Your task to perform on an android device: empty trash in google photos Image 0: 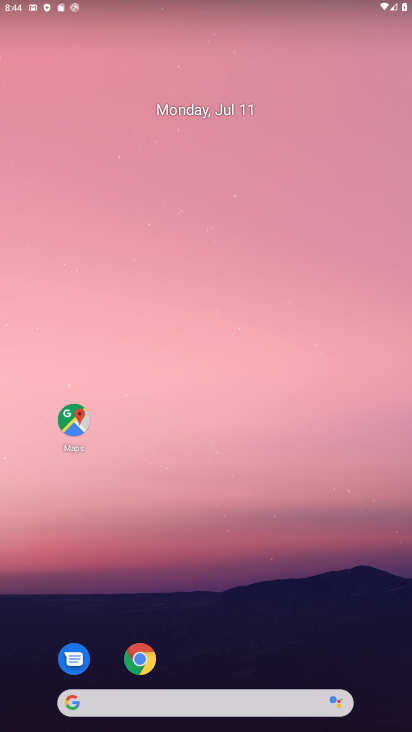
Step 0: drag from (134, 60) to (115, 0)
Your task to perform on an android device: empty trash in google photos Image 1: 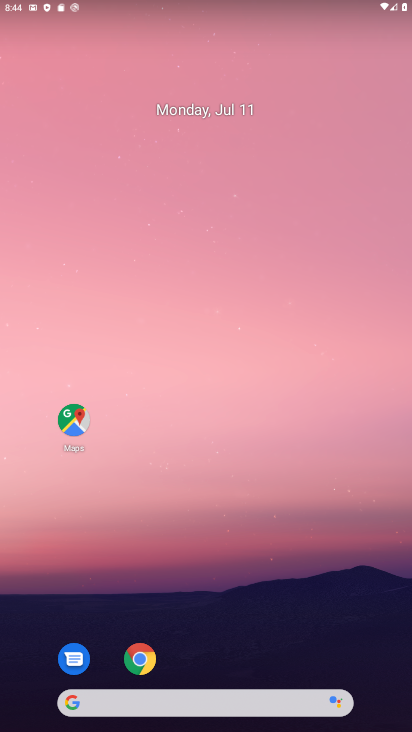
Step 1: drag from (150, 457) to (113, 70)
Your task to perform on an android device: empty trash in google photos Image 2: 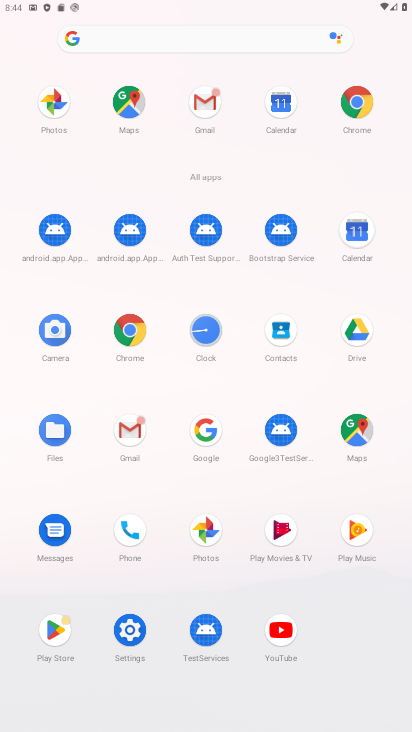
Step 2: click (210, 526)
Your task to perform on an android device: empty trash in google photos Image 3: 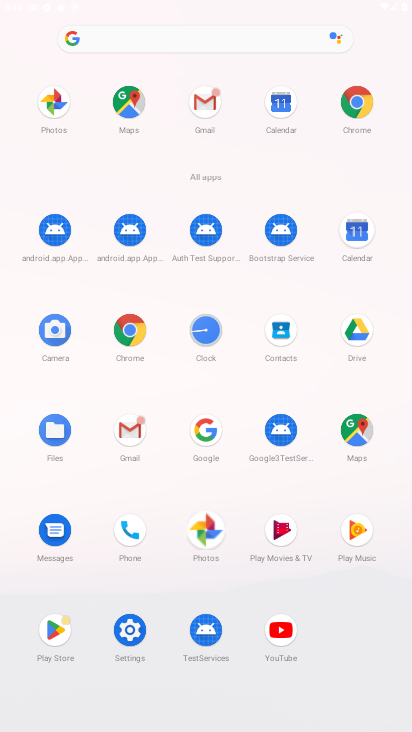
Step 3: click (208, 528)
Your task to perform on an android device: empty trash in google photos Image 4: 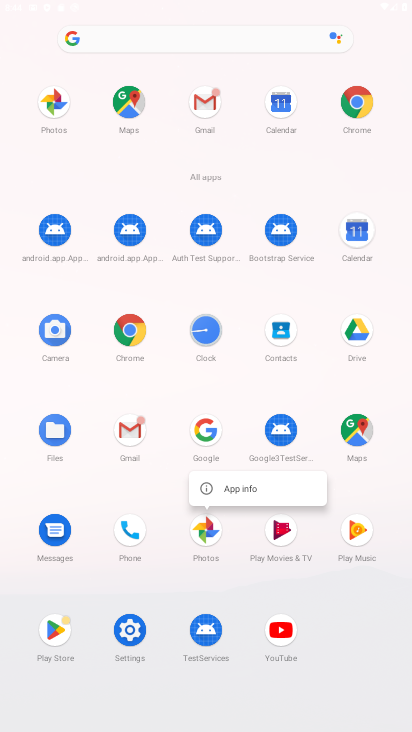
Step 4: click (209, 528)
Your task to perform on an android device: empty trash in google photos Image 5: 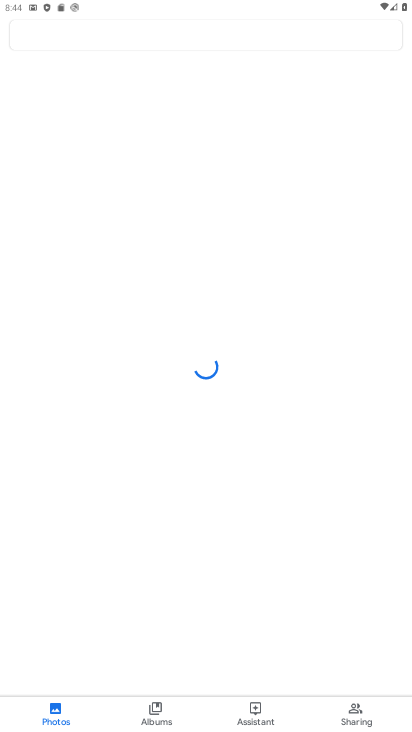
Step 5: press back button
Your task to perform on an android device: empty trash in google photos Image 6: 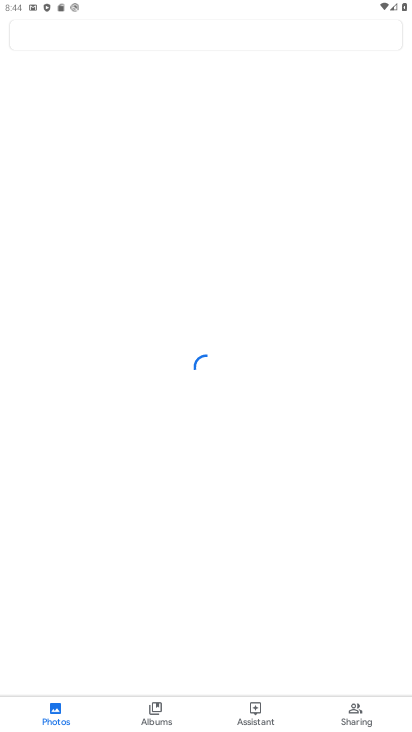
Step 6: press back button
Your task to perform on an android device: empty trash in google photos Image 7: 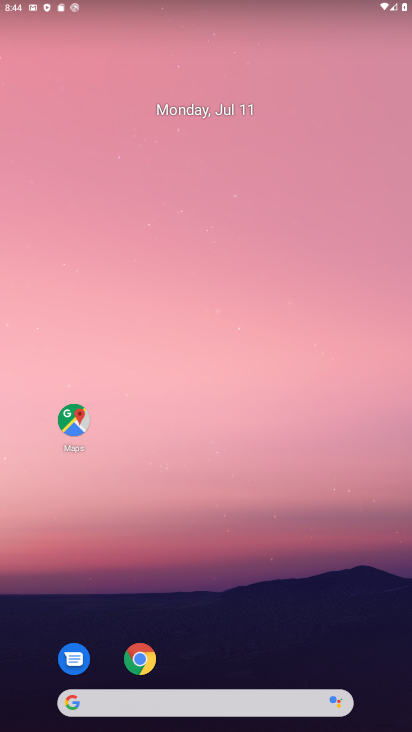
Step 7: drag from (268, 542) to (51, 45)
Your task to perform on an android device: empty trash in google photos Image 8: 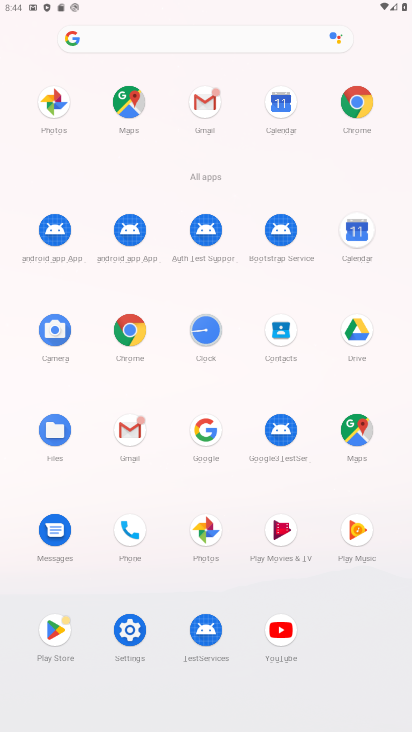
Step 8: click (196, 515)
Your task to perform on an android device: empty trash in google photos Image 9: 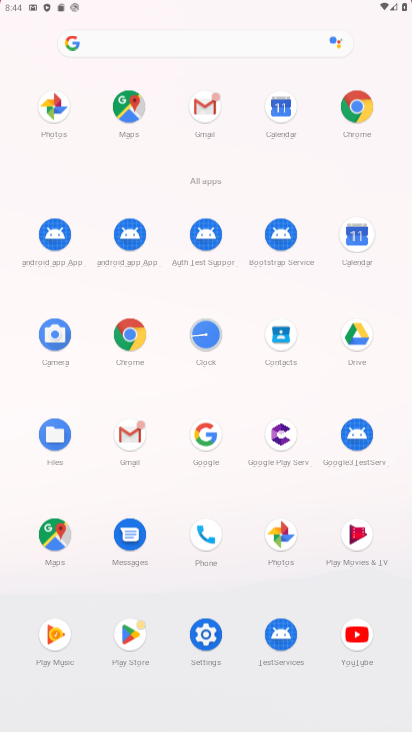
Step 9: click (200, 526)
Your task to perform on an android device: empty trash in google photos Image 10: 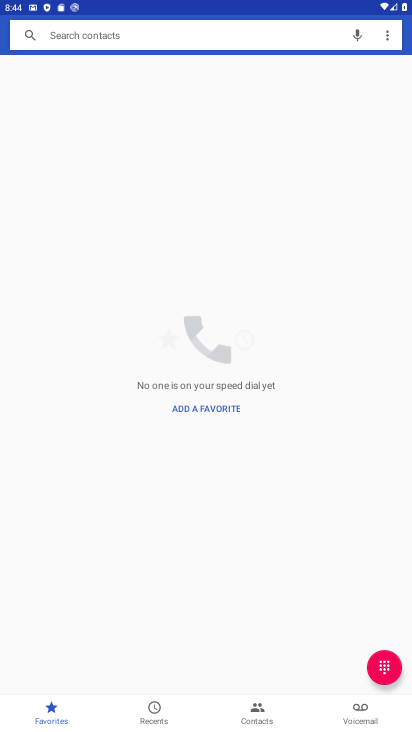
Step 10: press back button
Your task to perform on an android device: empty trash in google photos Image 11: 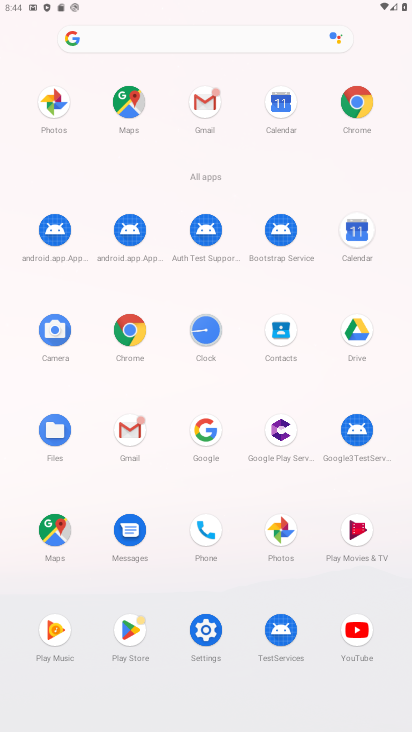
Step 11: click (285, 518)
Your task to perform on an android device: empty trash in google photos Image 12: 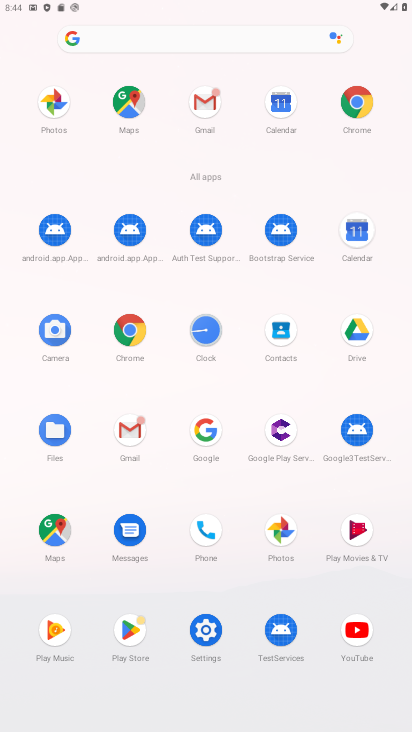
Step 12: click (280, 527)
Your task to perform on an android device: empty trash in google photos Image 13: 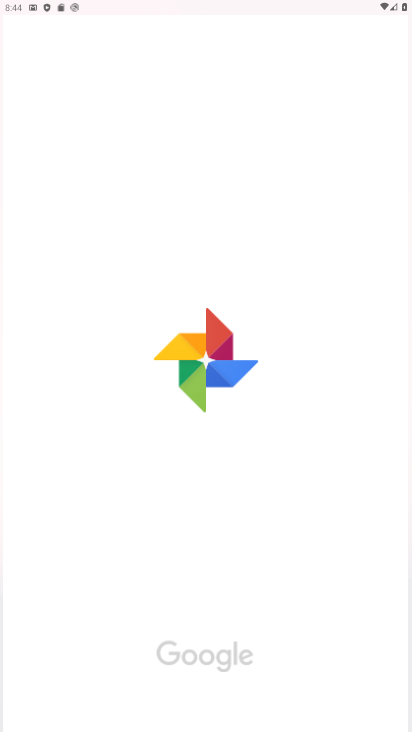
Step 13: click (275, 523)
Your task to perform on an android device: empty trash in google photos Image 14: 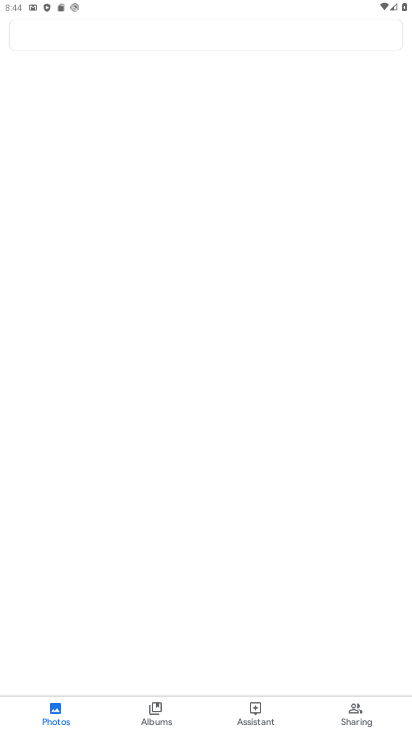
Step 14: click (275, 523)
Your task to perform on an android device: empty trash in google photos Image 15: 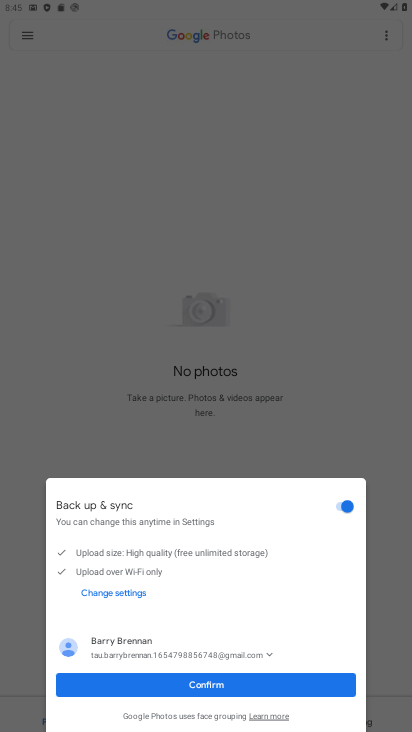
Step 15: click (239, 375)
Your task to perform on an android device: empty trash in google photos Image 16: 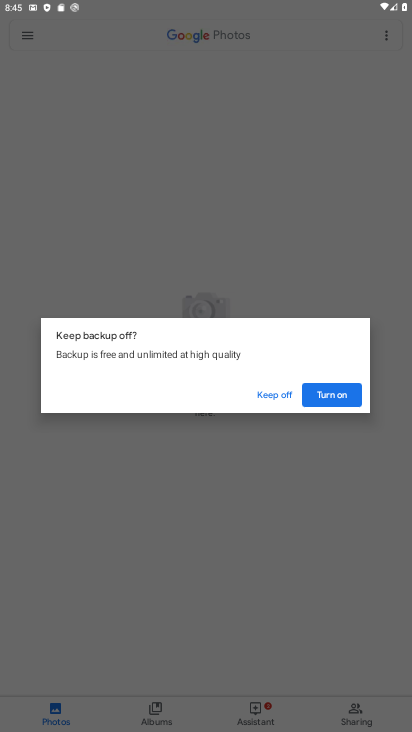
Step 16: click (316, 328)
Your task to perform on an android device: empty trash in google photos Image 17: 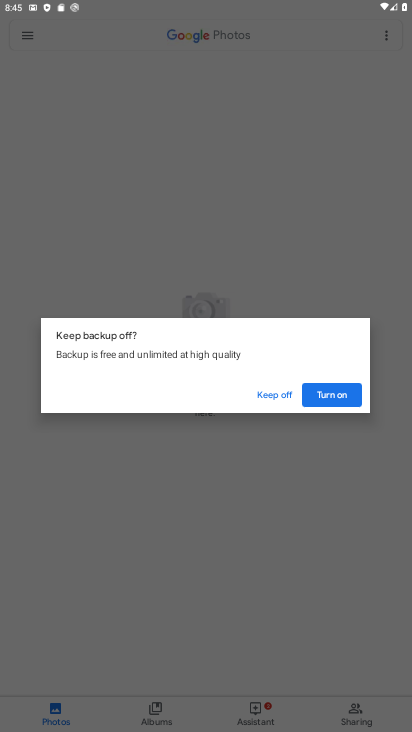
Step 17: click (316, 328)
Your task to perform on an android device: empty trash in google photos Image 18: 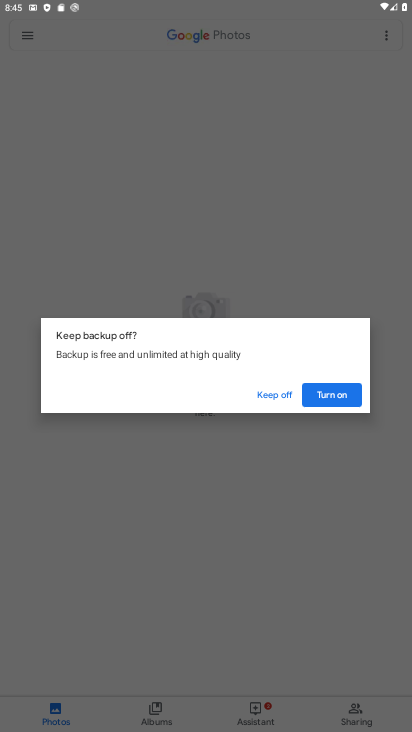
Step 18: click (308, 205)
Your task to perform on an android device: empty trash in google photos Image 19: 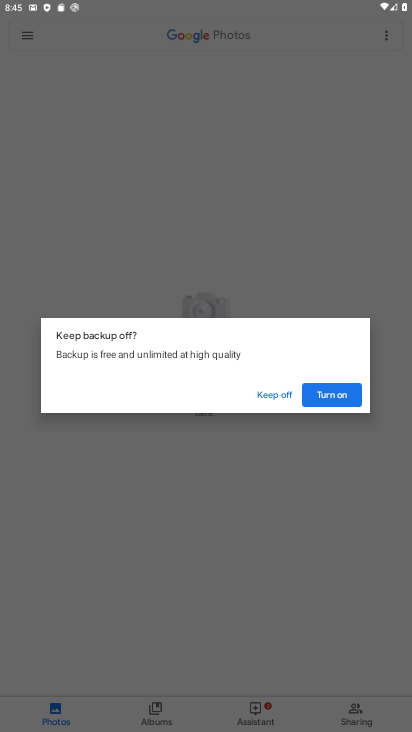
Step 19: click (311, 202)
Your task to perform on an android device: empty trash in google photos Image 20: 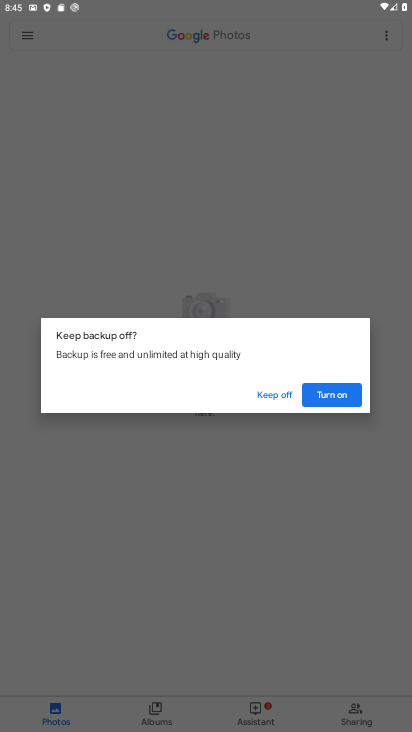
Step 20: press back button
Your task to perform on an android device: empty trash in google photos Image 21: 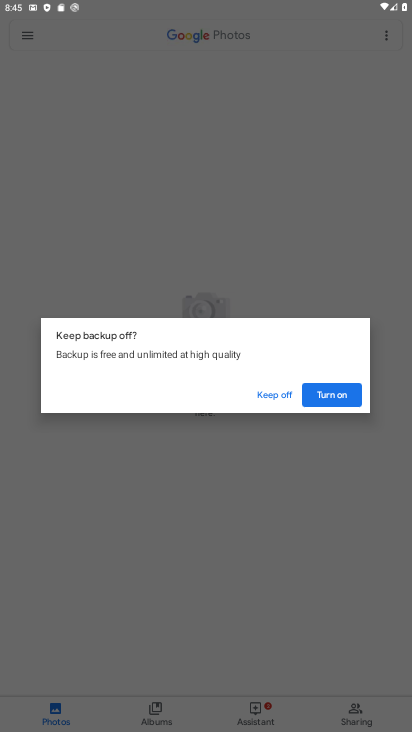
Step 21: click (189, 175)
Your task to perform on an android device: empty trash in google photos Image 22: 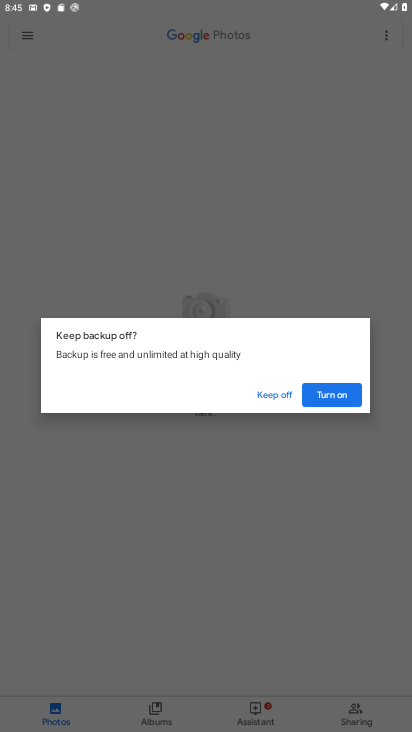
Step 22: click (195, 171)
Your task to perform on an android device: empty trash in google photos Image 23: 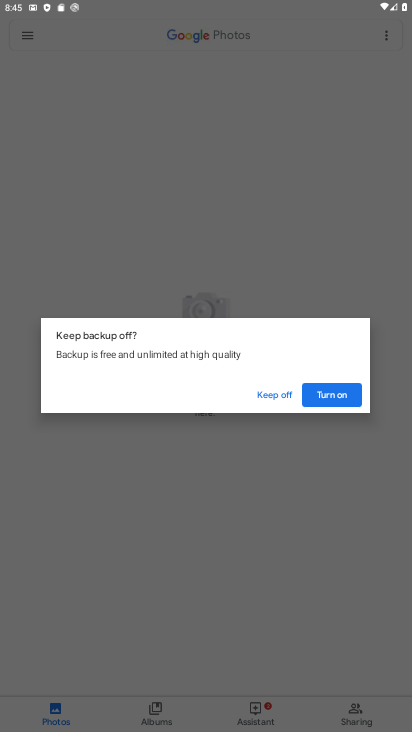
Step 23: press home button
Your task to perform on an android device: empty trash in google photos Image 24: 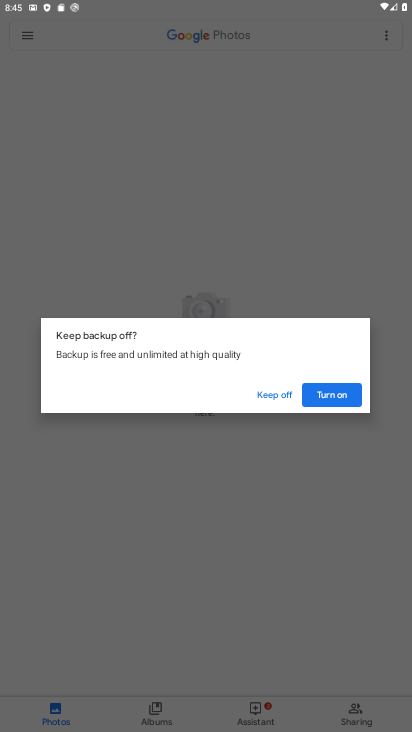
Step 24: press home button
Your task to perform on an android device: empty trash in google photos Image 25: 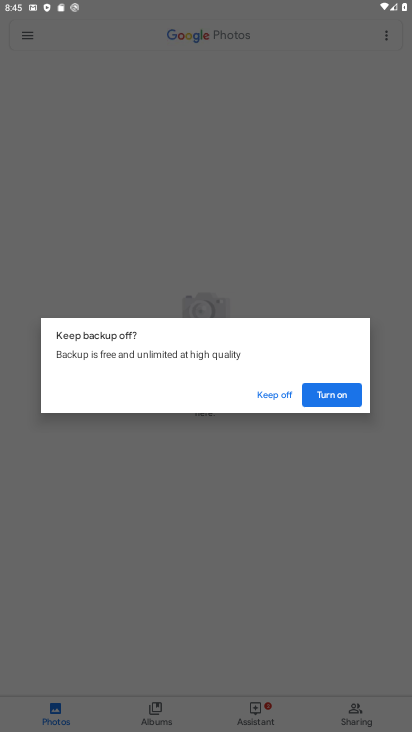
Step 25: click (194, 252)
Your task to perform on an android device: empty trash in google photos Image 26: 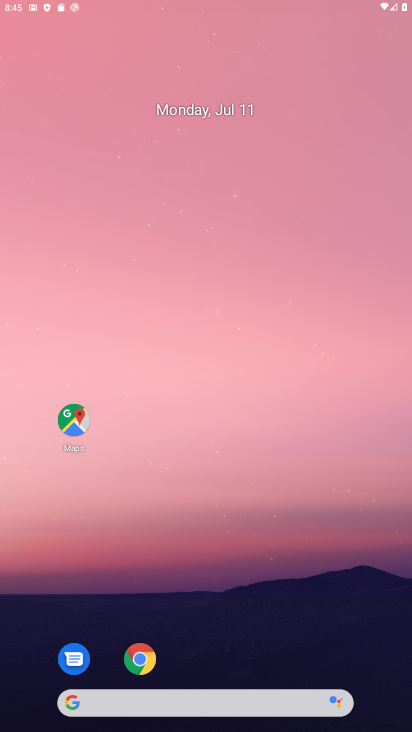
Step 26: press home button
Your task to perform on an android device: empty trash in google photos Image 27: 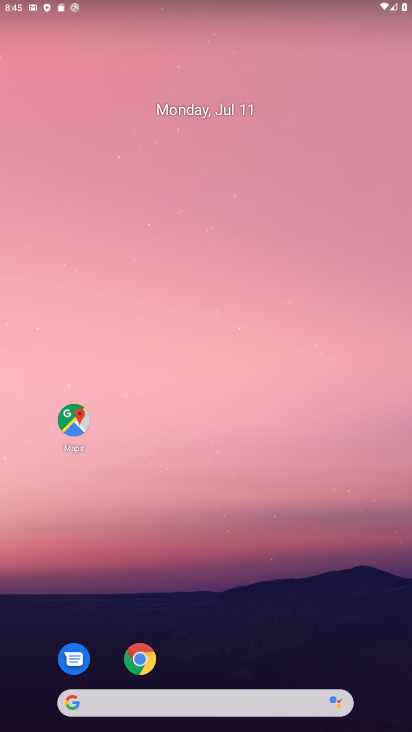
Step 27: drag from (234, 680) to (91, 0)
Your task to perform on an android device: empty trash in google photos Image 28: 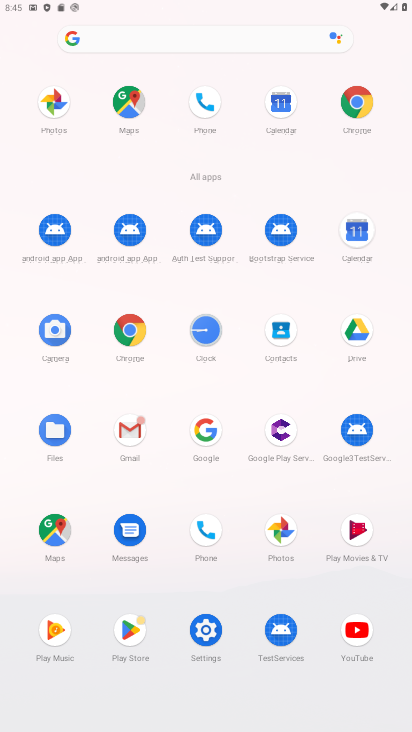
Step 28: click (284, 532)
Your task to perform on an android device: empty trash in google photos Image 29: 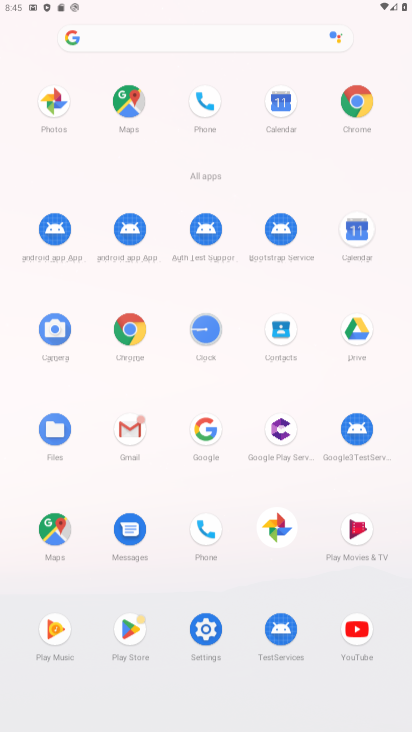
Step 29: click (285, 532)
Your task to perform on an android device: empty trash in google photos Image 30: 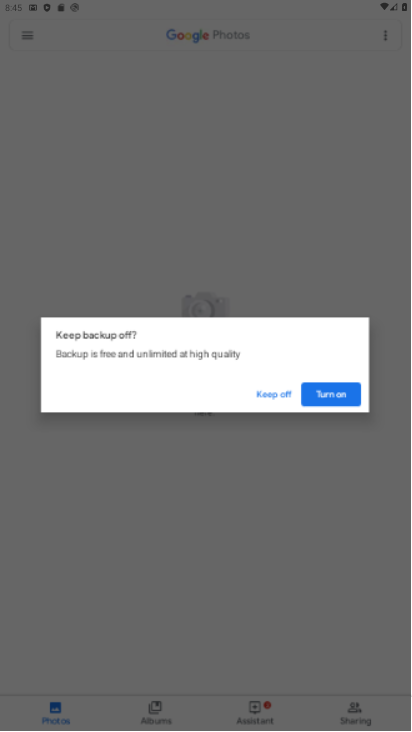
Step 30: click (286, 533)
Your task to perform on an android device: empty trash in google photos Image 31: 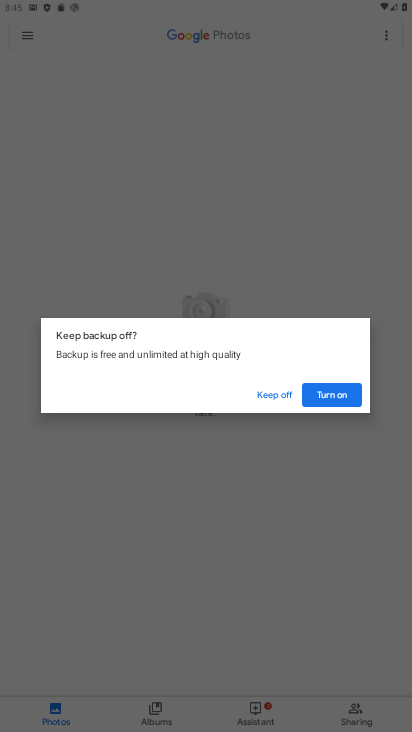
Step 31: click (286, 534)
Your task to perform on an android device: empty trash in google photos Image 32: 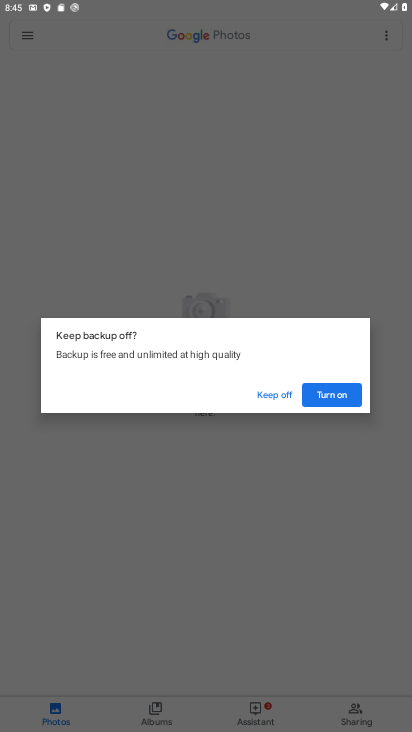
Step 32: click (272, 397)
Your task to perform on an android device: empty trash in google photos Image 33: 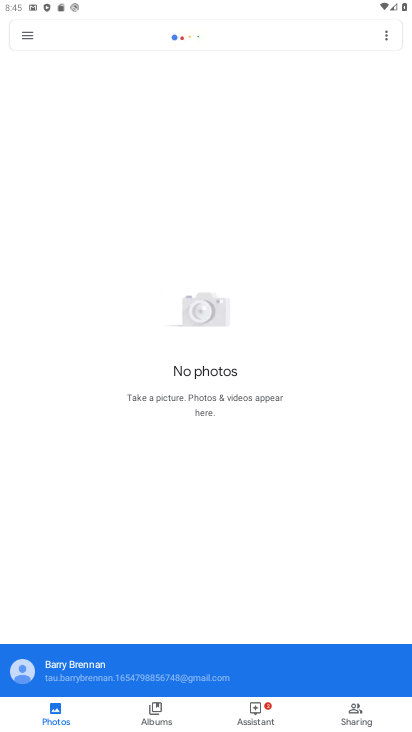
Step 33: click (31, 28)
Your task to perform on an android device: empty trash in google photos Image 34: 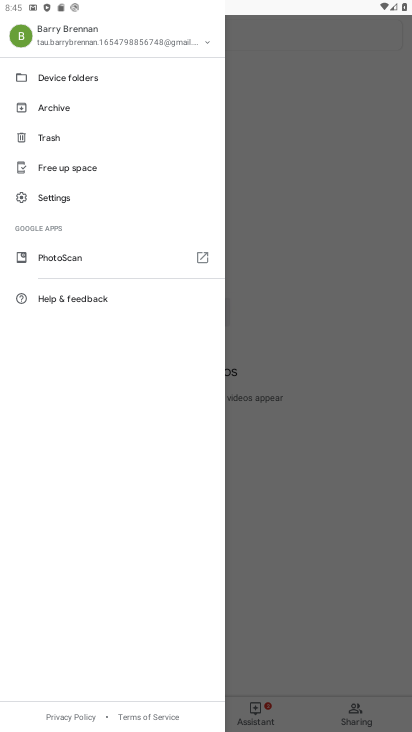
Step 34: click (44, 133)
Your task to perform on an android device: empty trash in google photos Image 35: 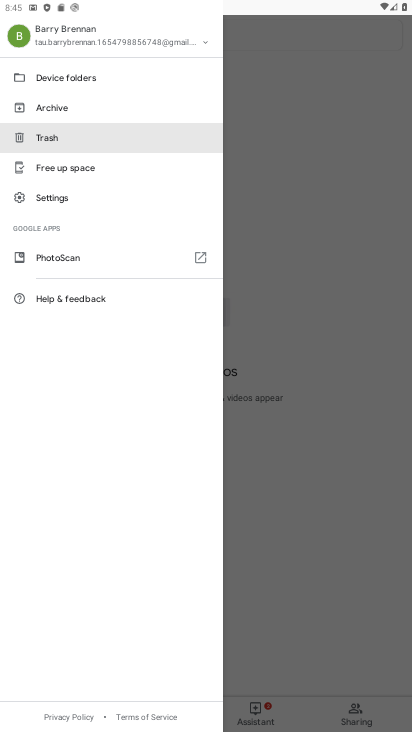
Step 35: click (44, 133)
Your task to perform on an android device: empty trash in google photos Image 36: 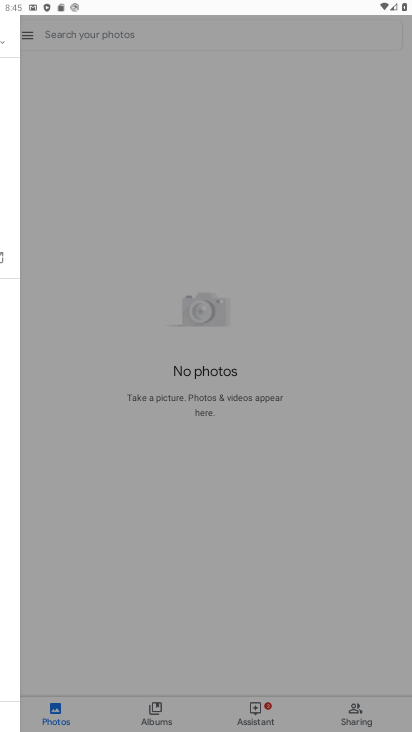
Step 36: click (44, 133)
Your task to perform on an android device: empty trash in google photos Image 37: 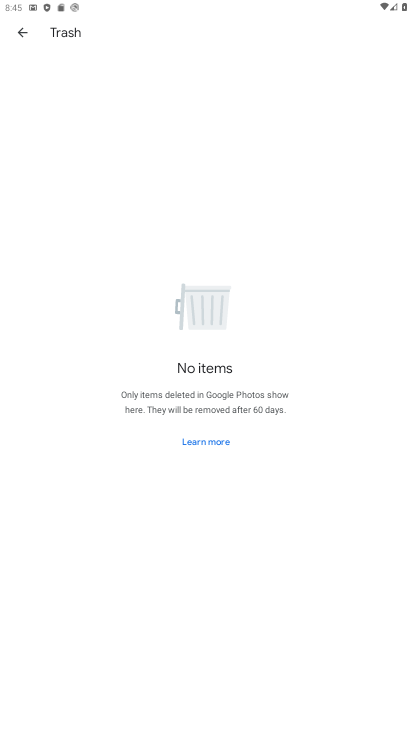
Step 37: task complete